Your task to perform on an android device: install app "NewsBreak: Local News & Alerts" Image 0: 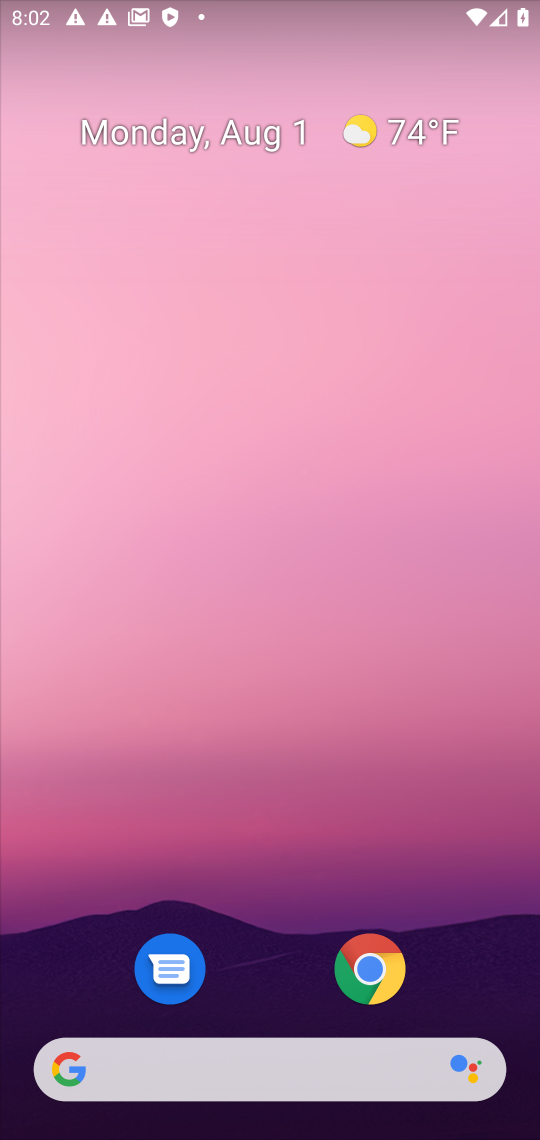
Step 0: click (201, 111)
Your task to perform on an android device: install app "NewsBreak: Local News & Alerts" Image 1: 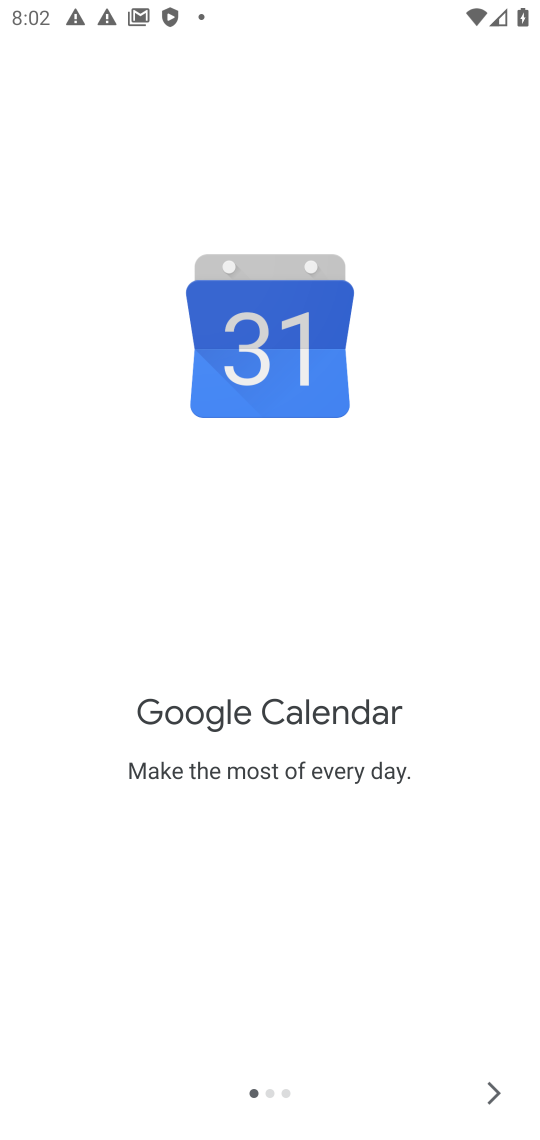
Step 1: press home button
Your task to perform on an android device: install app "NewsBreak: Local News & Alerts" Image 2: 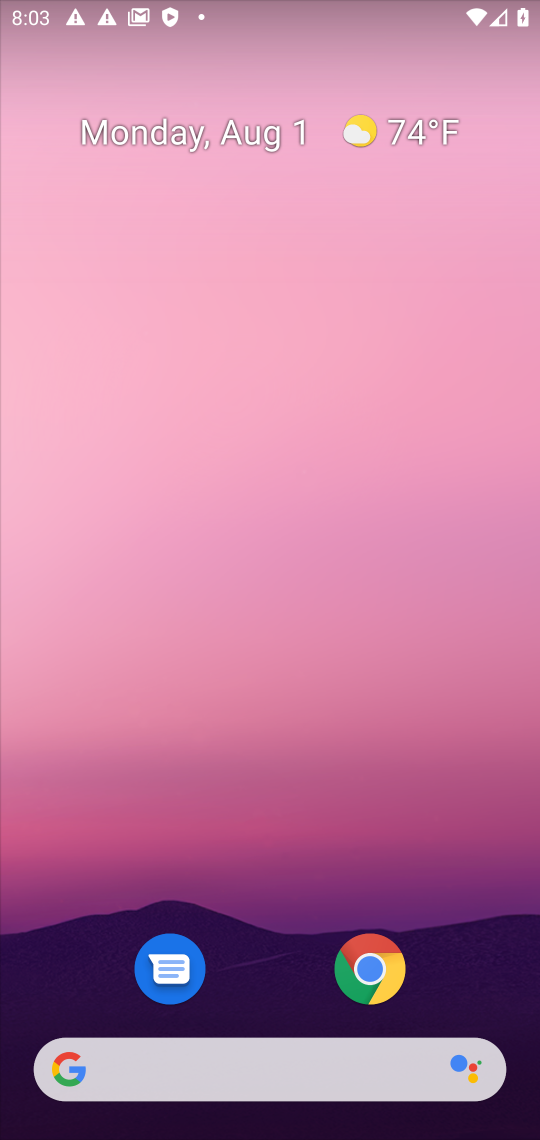
Step 2: drag from (235, 768) to (214, 386)
Your task to perform on an android device: install app "NewsBreak: Local News & Alerts" Image 3: 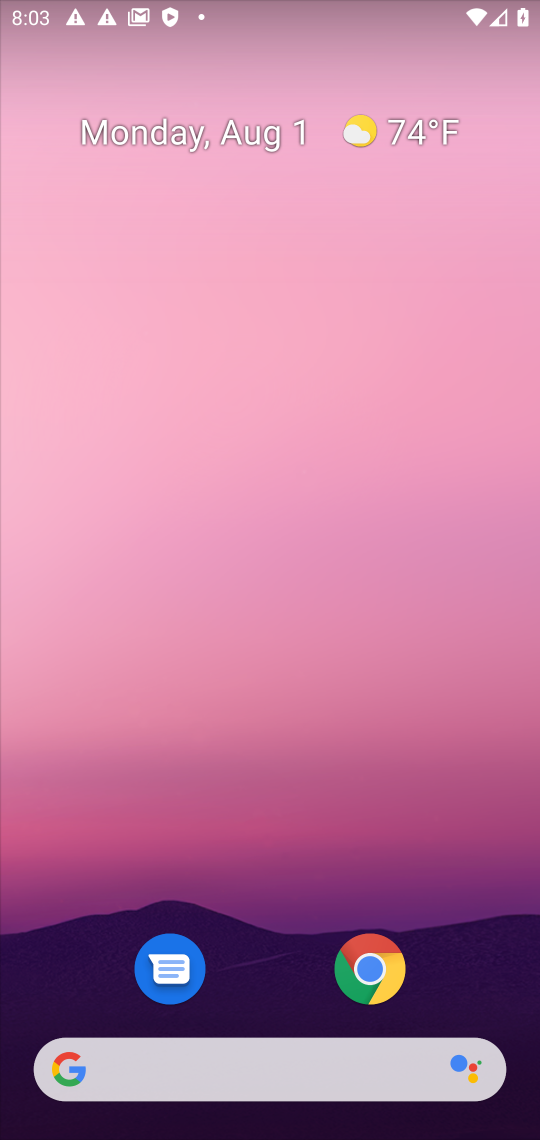
Step 3: drag from (240, 673) to (238, 462)
Your task to perform on an android device: install app "NewsBreak: Local News & Alerts" Image 4: 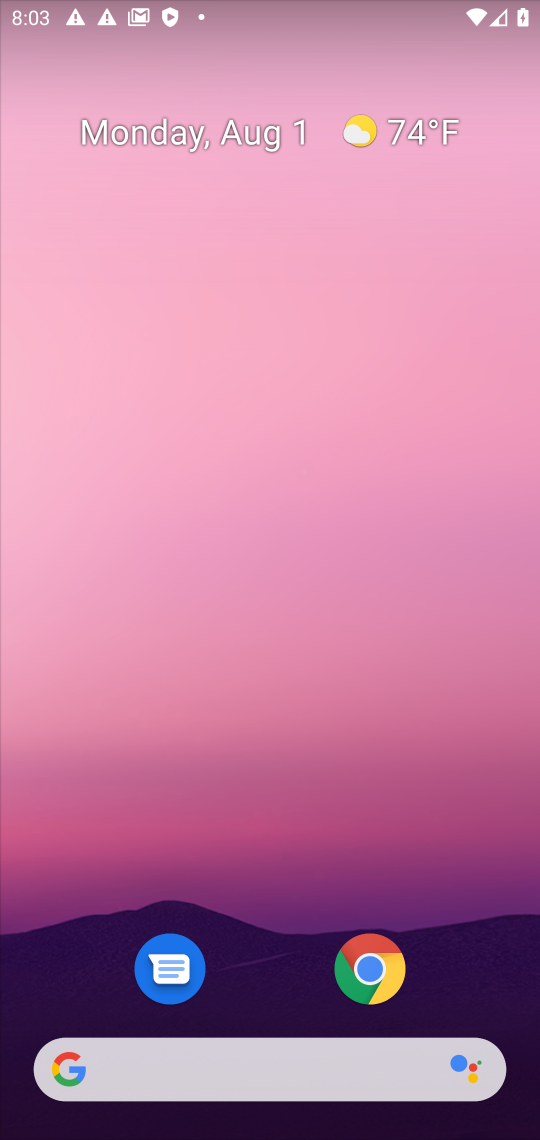
Step 4: click (262, 991)
Your task to perform on an android device: install app "NewsBreak: Local News & Alerts" Image 5: 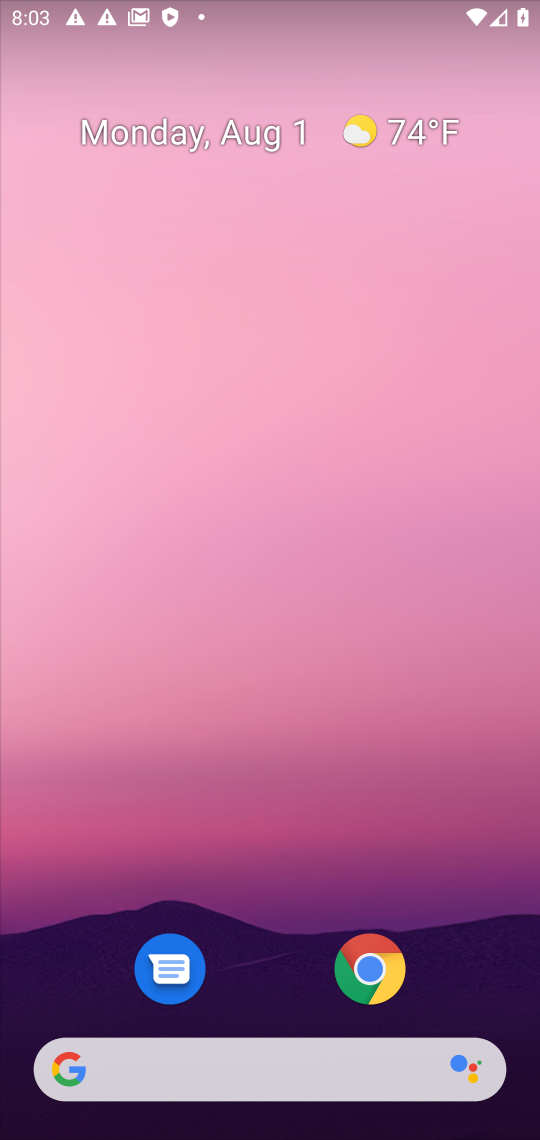
Step 5: drag from (266, 217) to (266, 142)
Your task to perform on an android device: install app "NewsBreak: Local News & Alerts" Image 6: 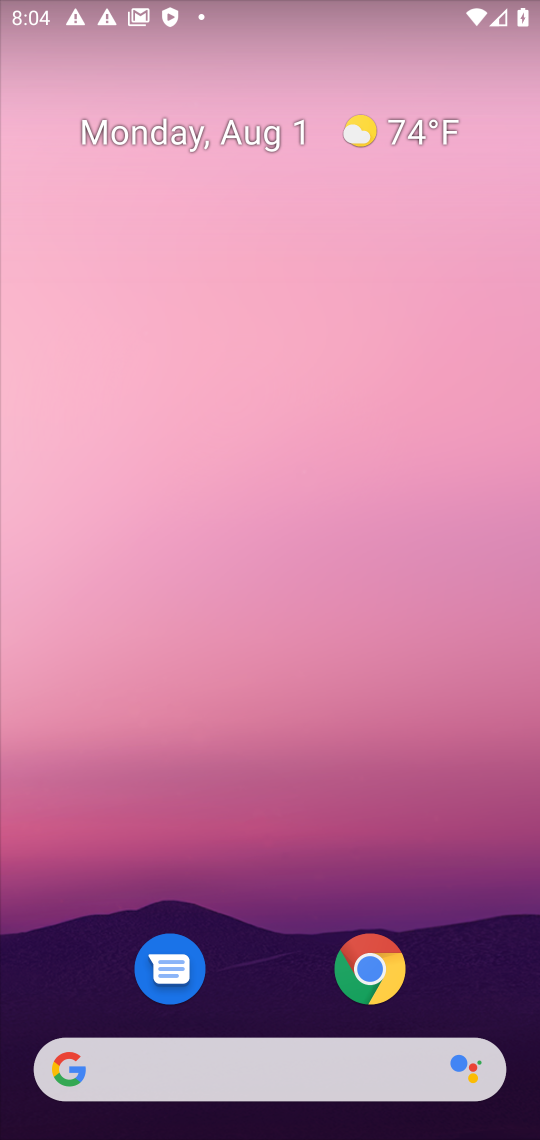
Step 6: drag from (217, 888) to (232, 435)
Your task to perform on an android device: install app "NewsBreak: Local News & Alerts" Image 7: 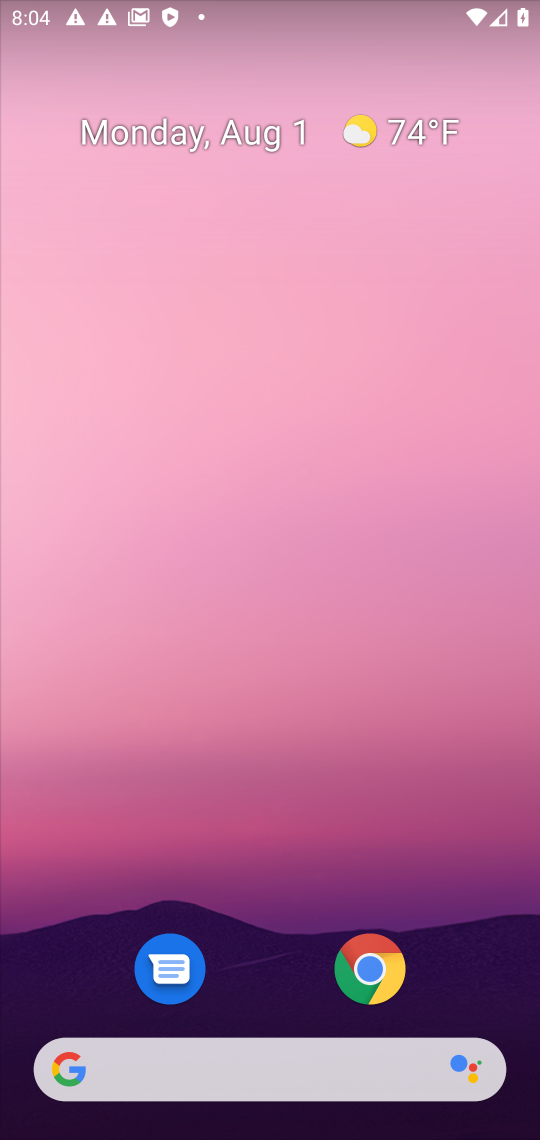
Step 7: drag from (288, 945) to (280, 118)
Your task to perform on an android device: install app "NewsBreak: Local News & Alerts" Image 8: 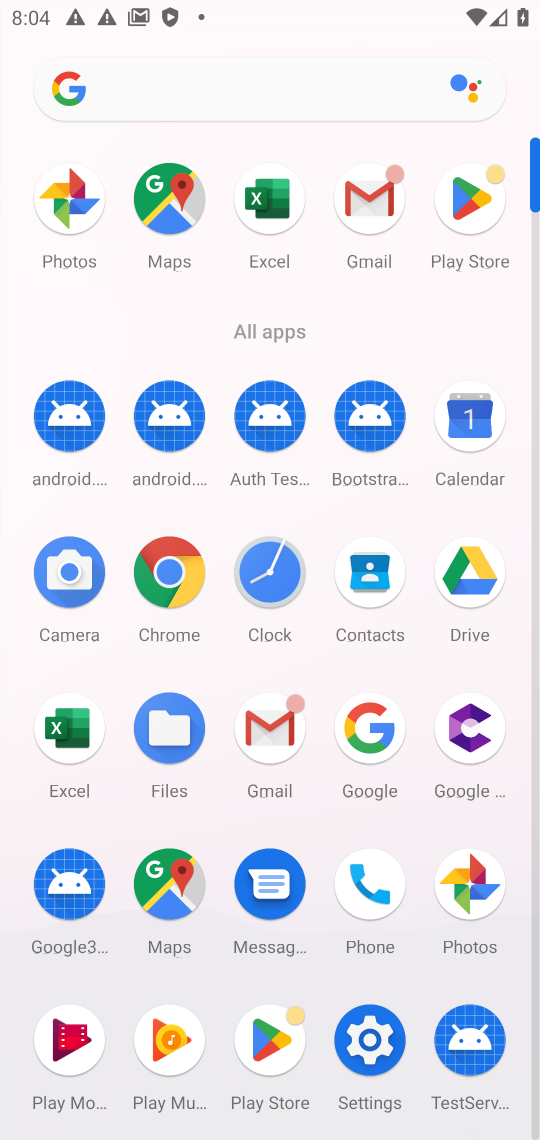
Step 8: click (459, 197)
Your task to perform on an android device: install app "NewsBreak: Local News & Alerts" Image 9: 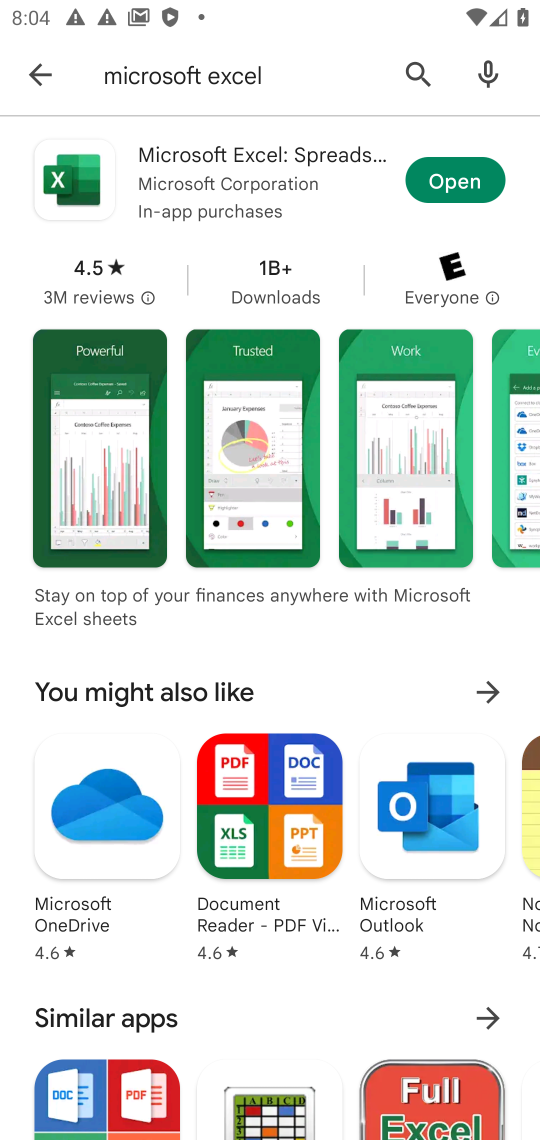
Step 9: click (30, 79)
Your task to perform on an android device: install app "NewsBreak: Local News & Alerts" Image 10: 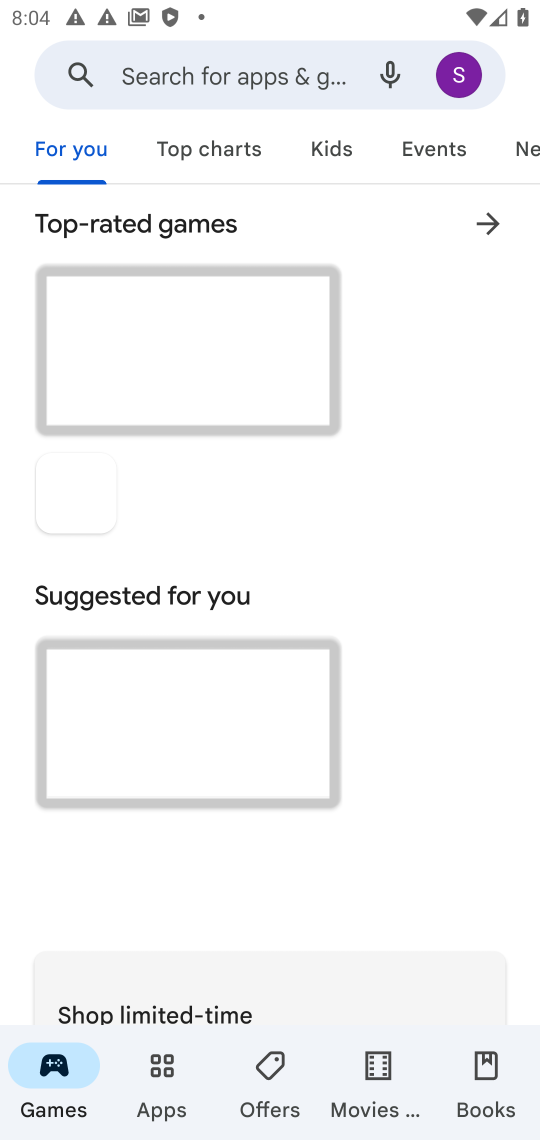
Step 10: click (244, 100)
Your task to perform on an android device: install app "NewsBreak: Local News & Alerts" Image 11: 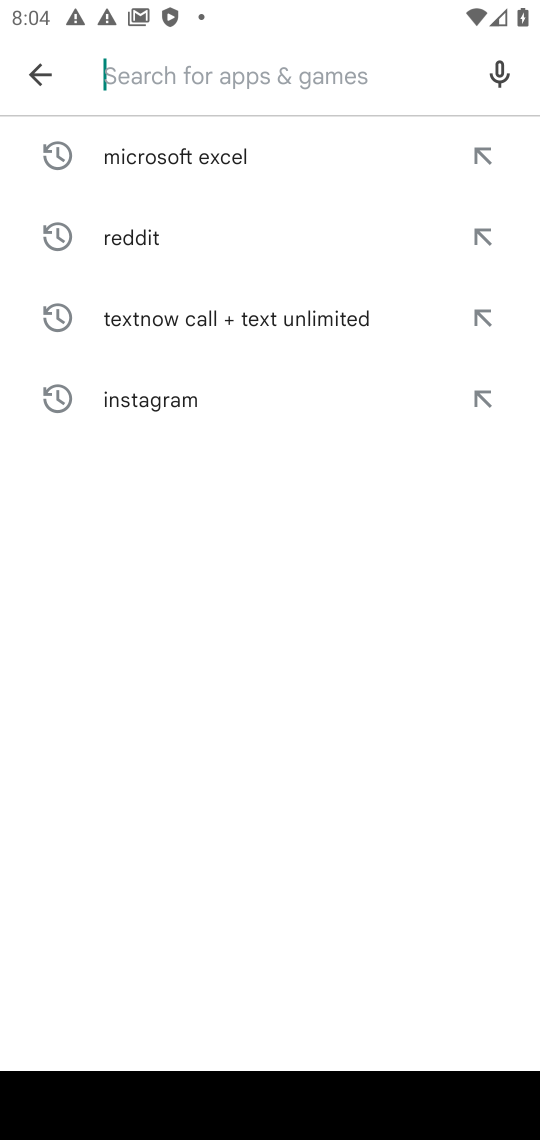
Step 11: type "NewsBreak: Local News & Alerts"
Your task to perform on an android device: install app "NewsBreak: Local News & Alerts" Image 12: 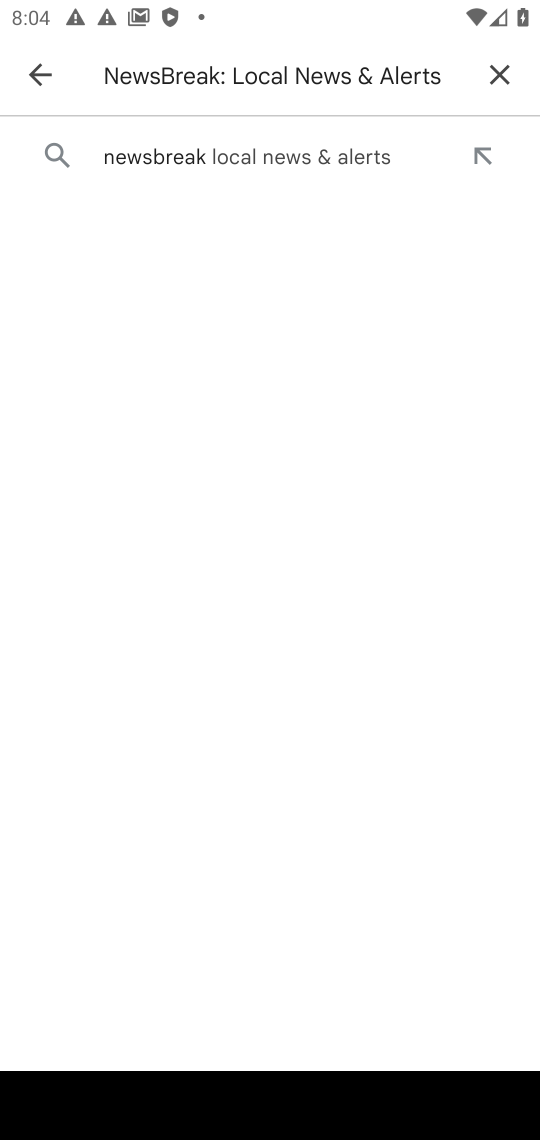
Step 12: click (139, 146)
Your task to perform on an android device: install app "NewsBreak: Local News & Alerts" Image 13: 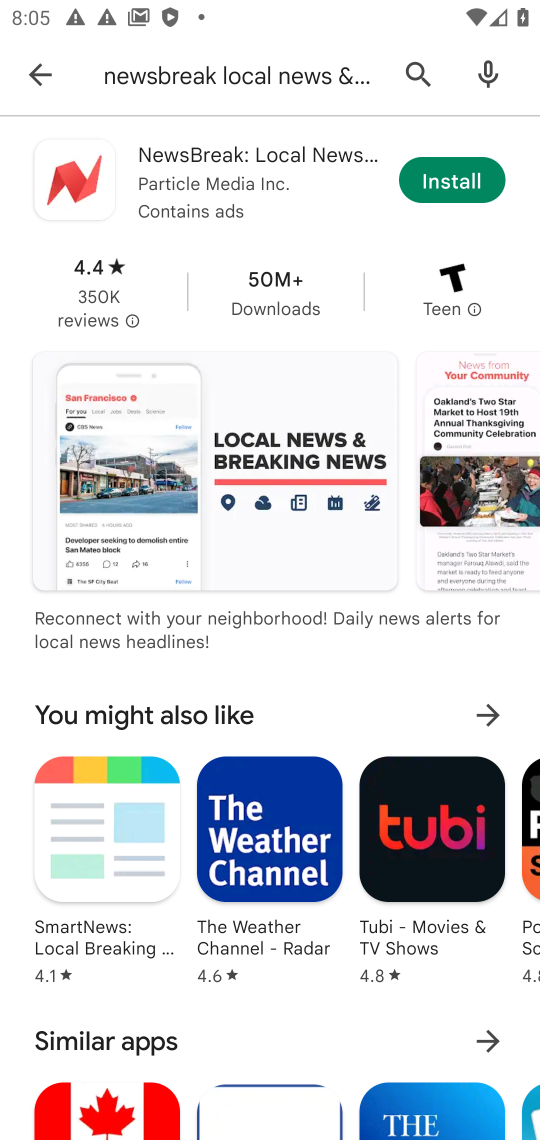
Step 13: click (451, 190)
Your task to perform on an android device: install app "NewsBreak: Local News & Alerts" Image 14: 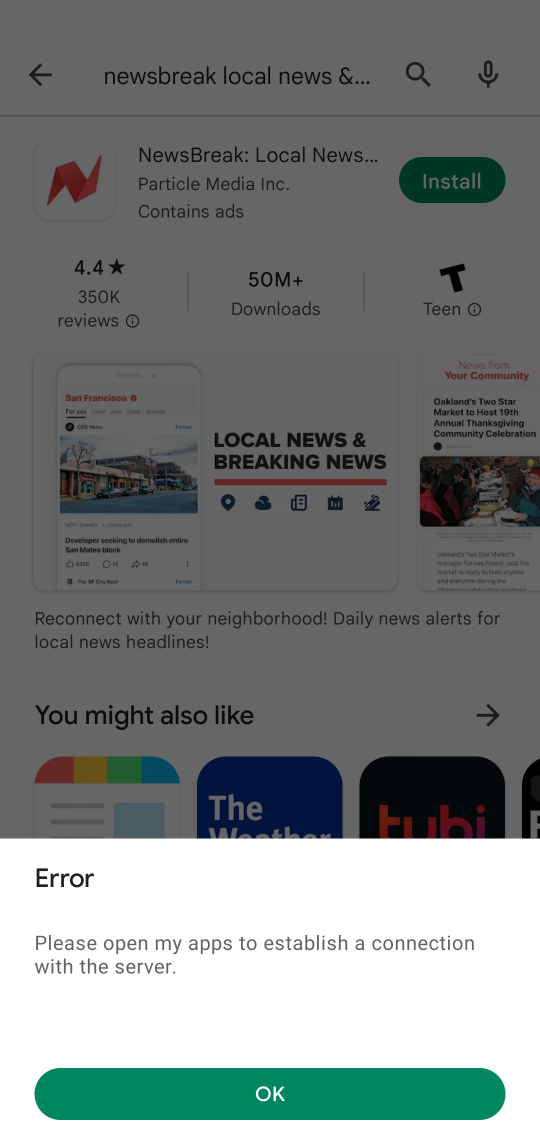
Step 14: click (215, 1070)
Your task to perform on an android device: install app "NewsBreak: Local News & Alerts" Image 15: 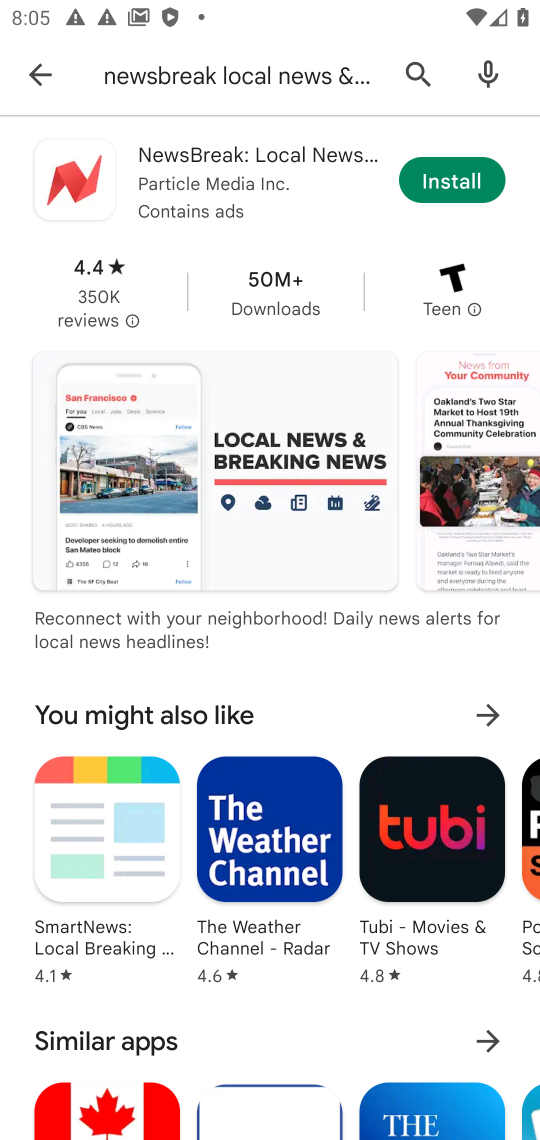
Step 15: task complete